Your task to perform on an android device: Open the Play Movies app and select the watchlist tab. Image 0: 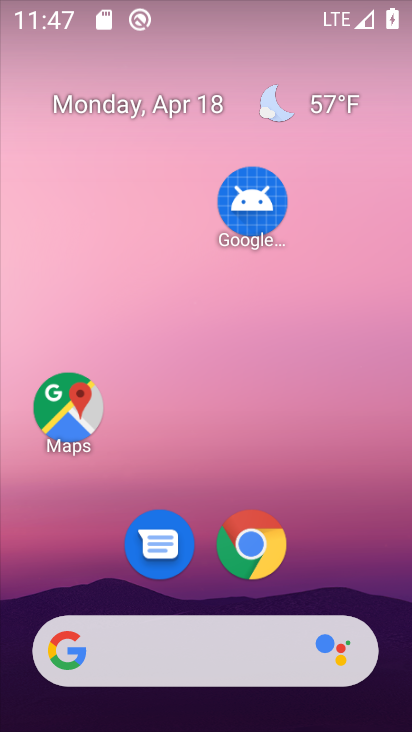
Step 0: drag from (110, 566) to (162, 214)
Your task to perform on an android device: Open the Play Movies app and select the watchlist tab. Image 1: 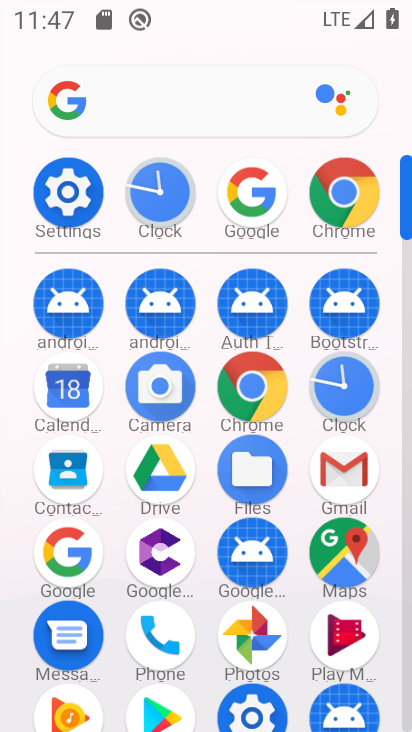
Step 1: click (327, 637)
Your task to perform on an android device: Open the Play Movies app and select the watchlist tab. Image 2: 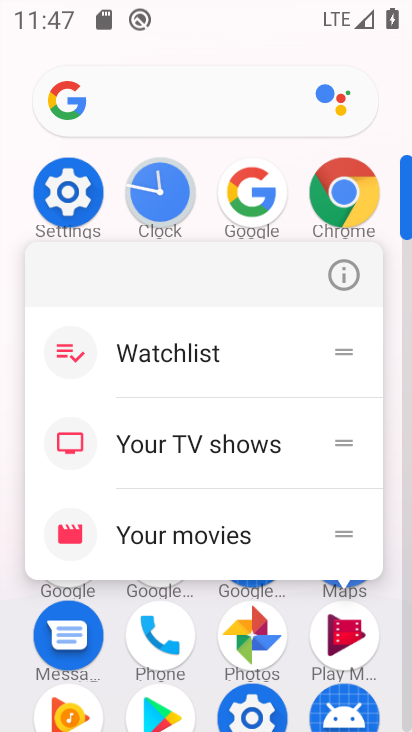
Step 2: click (329, 626)
Your task to perform on an android device: Open the Play Movies app and select the watchlist tab. Image 3: 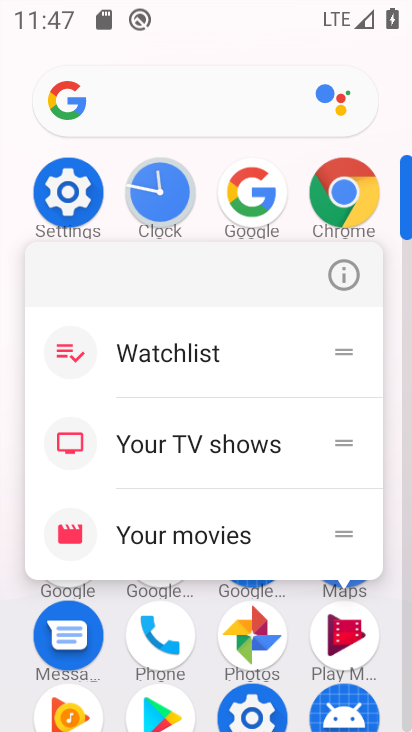
Step 3: click (328, 622)
Your task to perform on an android device: Open the Play Movies app and select the watchlist tab. Image 4: 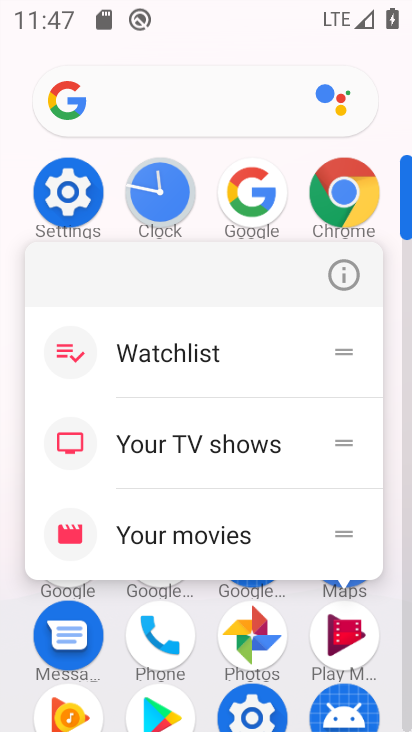
Step 4: click (354, 628)
Your task to perform on an android device: Open the Play Movies app and select the watchlist tab. Image 5: 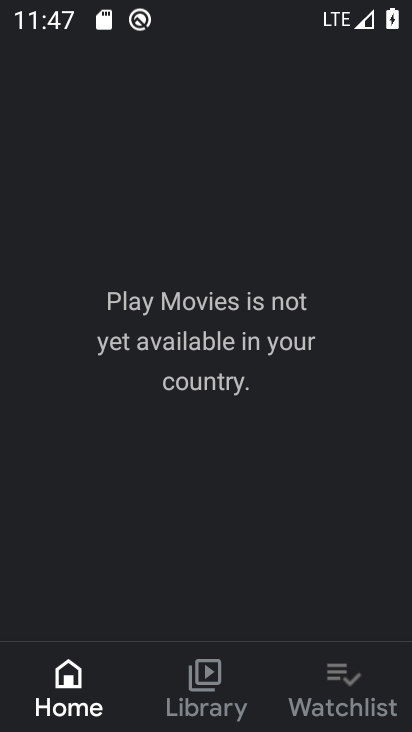
Step 5: click (340, 661)
Your task to perform on an android device: Open the Play Movies app and select the watchlist tab. Image 6: 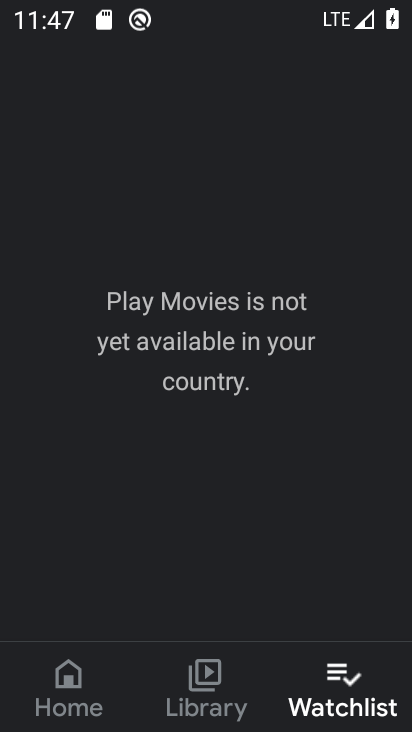
Step 6: task complete